Your task to perform on an android device: open app "YouTube Kids" (install if not already installed) Image 0: 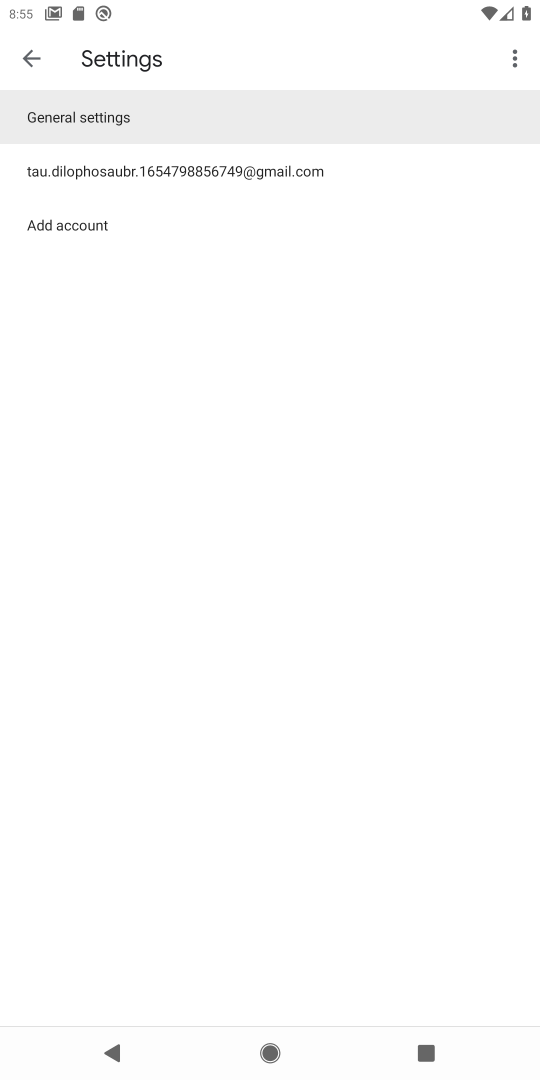
Step 0: press home button
Your task to perform on an android device: open app "YouTube Kids" (install if not already installed) Image 1: 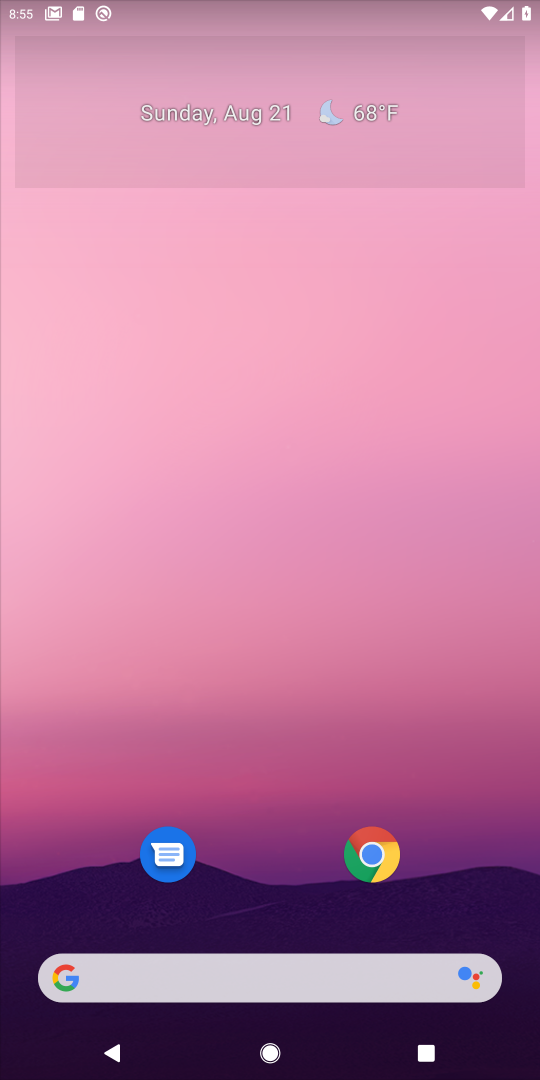
Step 1: drag from (278, 940) to (380, 20)
Your task to perform on an android device: open app "YouTube Kids" (install if not already installed) Image 2: 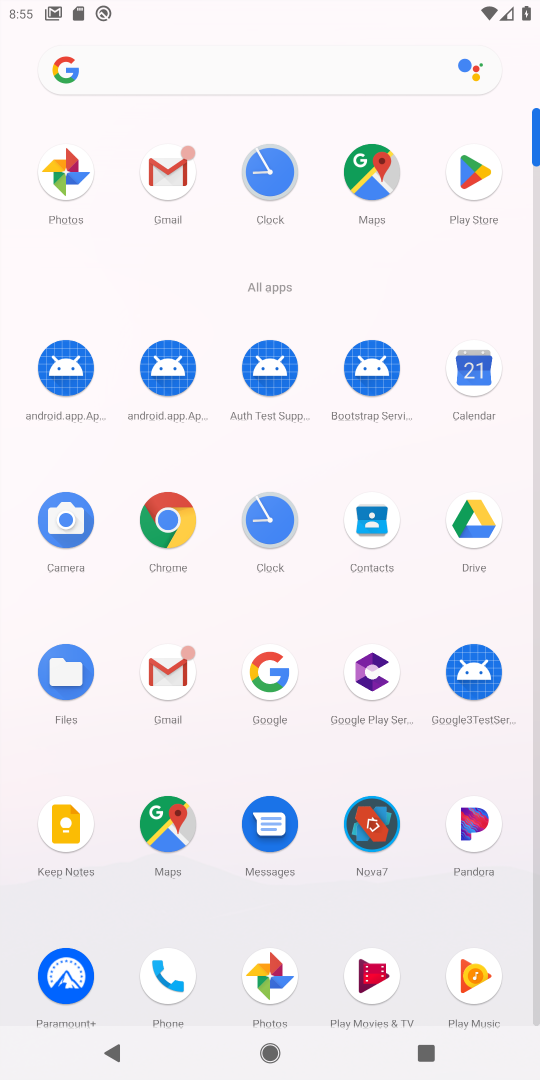
Step 2: click (486, 207)
Your task to perform on an android device: open app "YouTube Kids" (install if not already installed) Image 3: 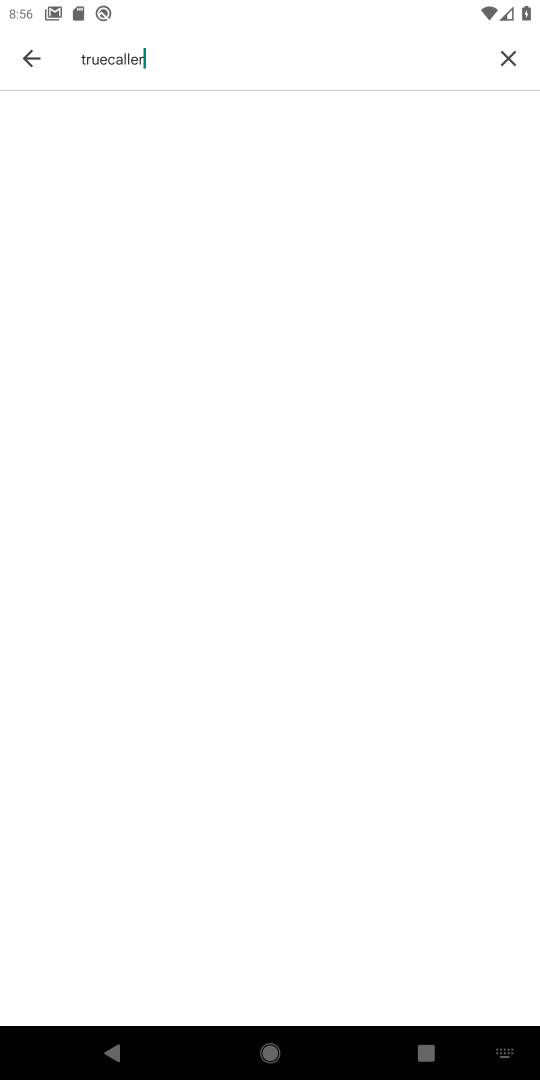
Step 3: task complete